Your task to perform on an android device: set the stopwatch Image 0: 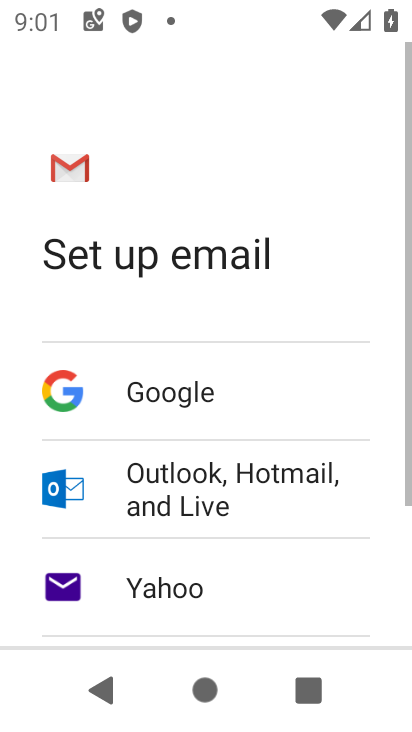
Step 0: press home button
Your task to perform on an android device: set the stopwatch Image 1: 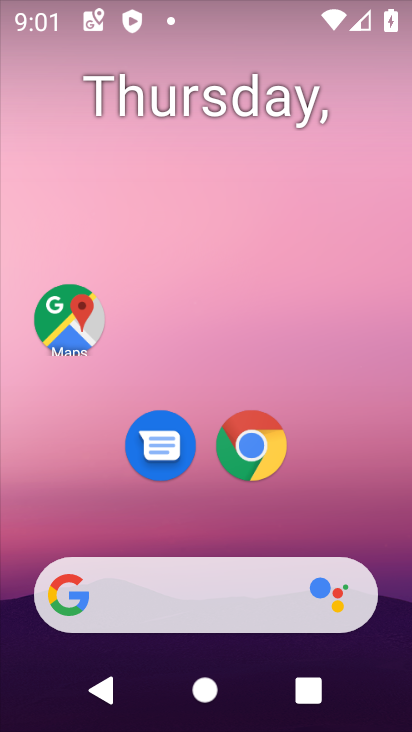
Step 1: drag from (353, 533) to (380, 20)
Your task to perform on an android device: set the stopwatch Image 2: 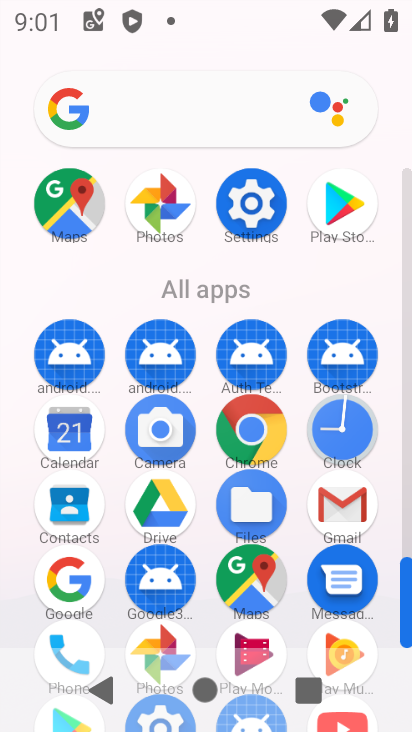
Step 2: click (341, 433)
Your task to perform on an android device: set the stopwatch Image 3: 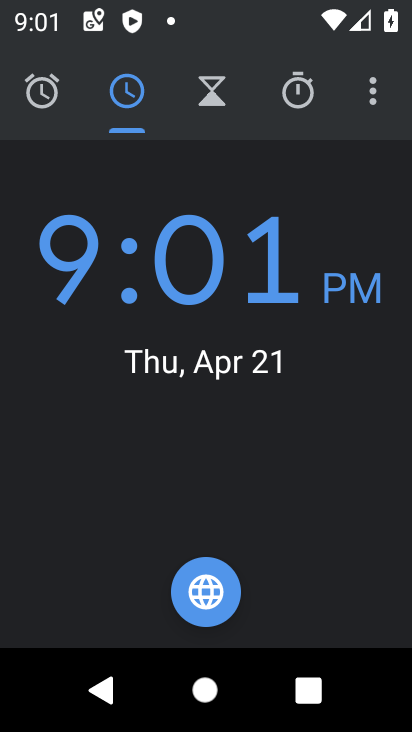
Step 3: click (302, 101)
Your task to perform on an android device: set the stopwatch Image 4: 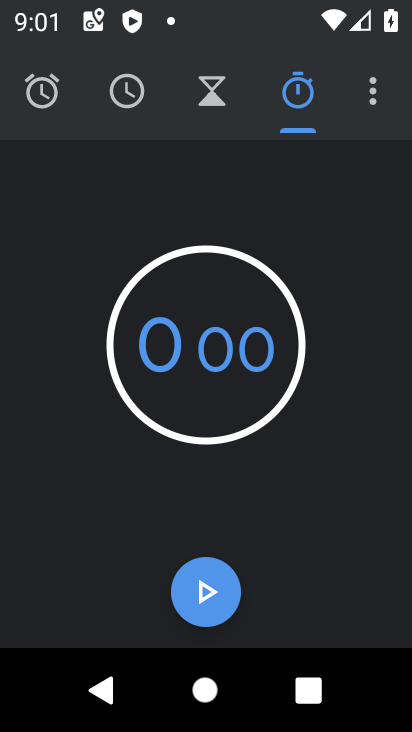
Step 4: click (198, 602)
Your task to perform on an android device: set the stopwatch Image 5: 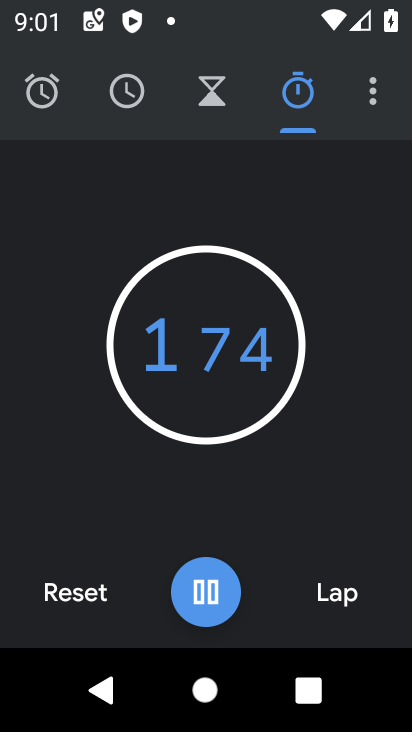
Step 5: click (198, 601)
Your task to perform on an android device: set the stopwatch Image 6: 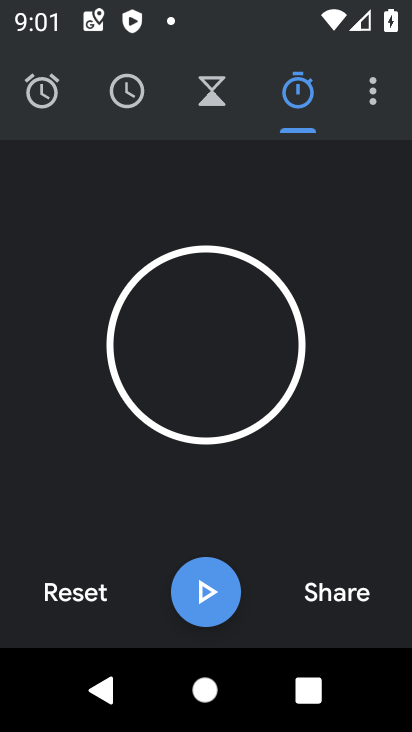
Step 6: task complete